Your task to perform on an android device: open sync settings in chrome Image 0: 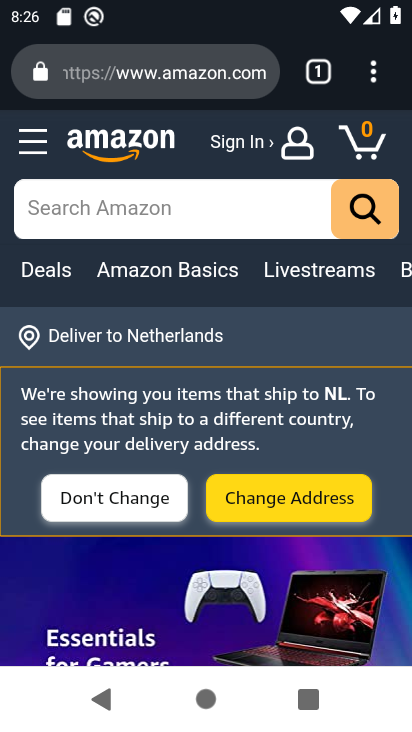
Step 0: drag from (184, 564) to (153, 38)
Your task to perform on an android device: open sync settings in chrome Image 1: 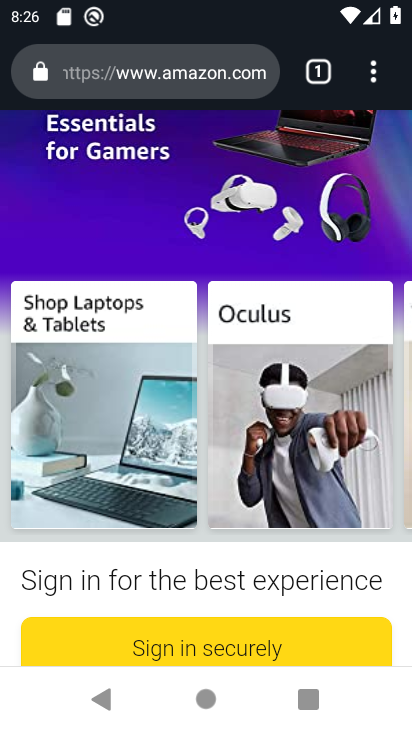
Step 1: click (379, 64)
Your task to perform on an android device: open sync settings in chrome Image 2: 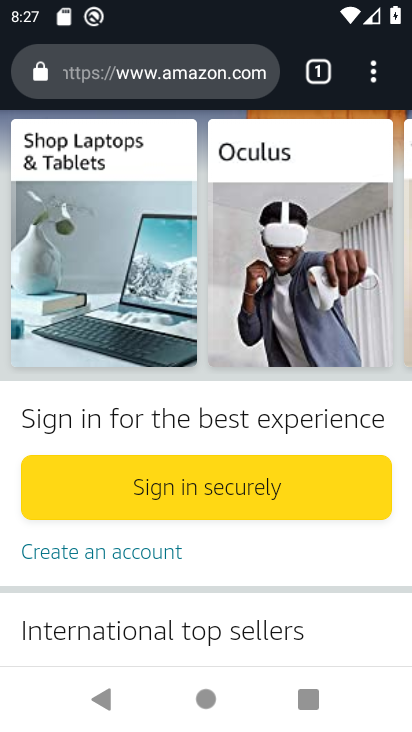
Step 2: drag from (225, 609) to (295, 165)
Your task to perform on an android device: open sync settings in chrome Image 3: 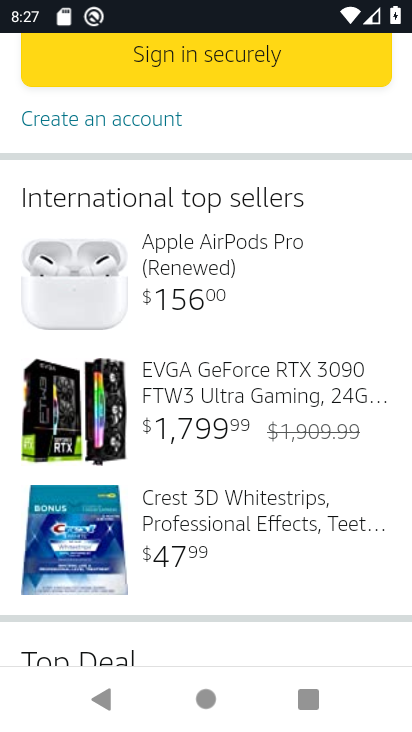
Step 3: drag from (231, 575) to (259, 282)
Your task to perform on an android device: open sync settings in chrome Image 4: 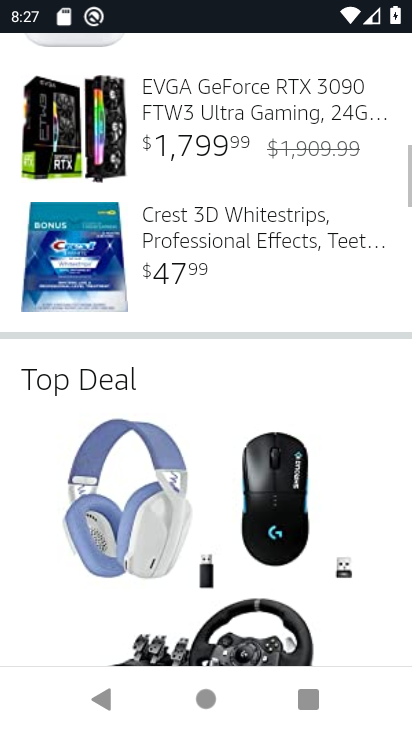
Step 4: drag from (259, 213) to (273, 689)
Your task to perform on an android device: open sync settings in chrome Image 5: 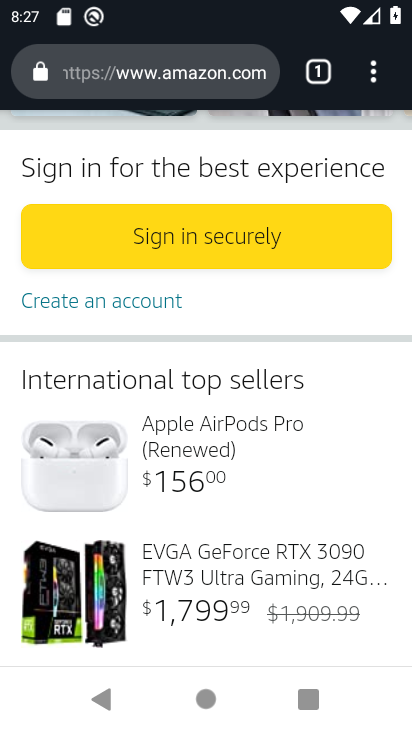
Step 5: drag from (229, 601) to (294, 697)
Your task to perform on an android device: open sync settings in chrome Image 6: 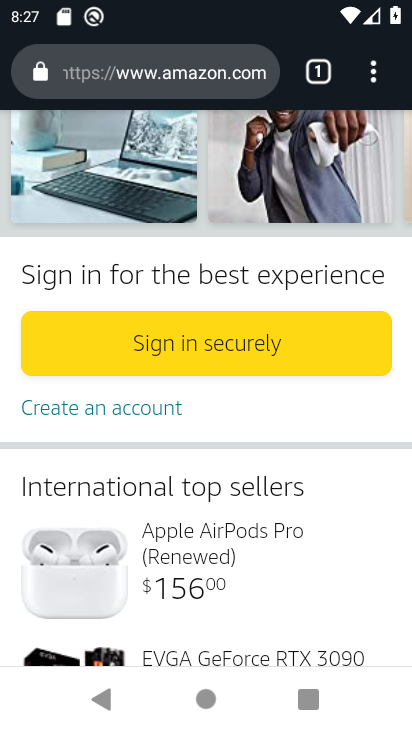
Step 6: click (377, 69)
Your task to perform on an android device: open sync settings in chrome Image 7: 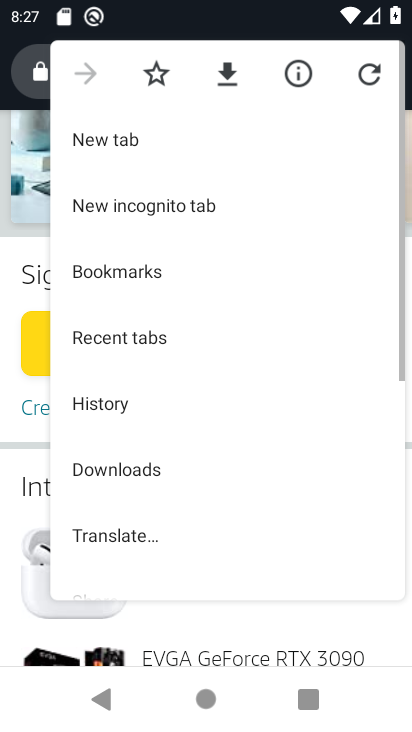
Step 7: drag from (167, 493) to (193, 106)
Your task to perform on an android device: open sync settings in chrome Image 8: 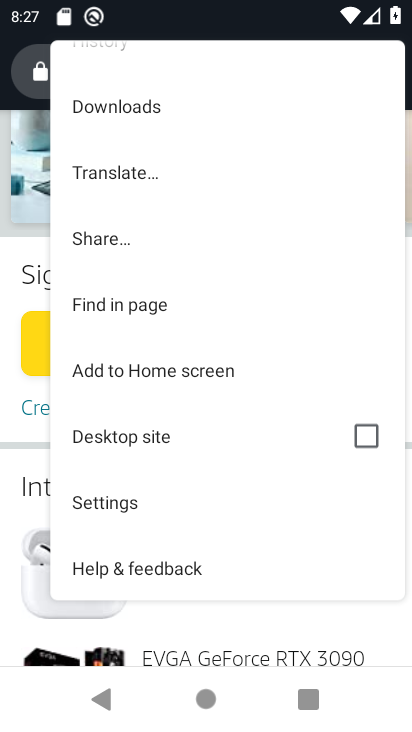
Step 8: click (142, 506)
Your task to perform on an android device: open sync settings in chrome Image 9: 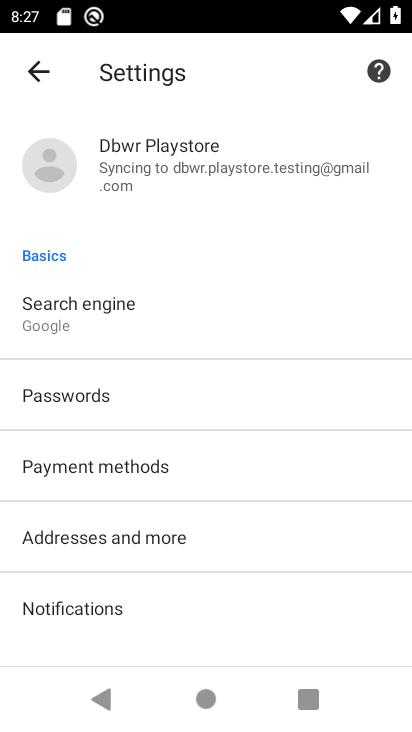
Step 9: drag from (206, 295) to (296, 10)
Your task to perform on an android device: open sync settings in chrome Image 10: 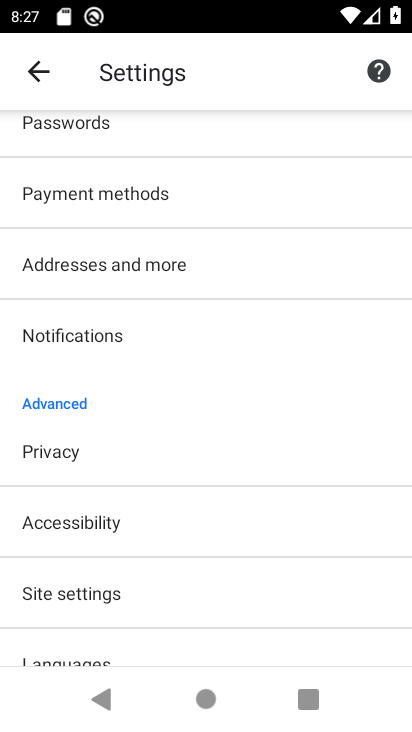
Step 10: click (98, 575)
Your task to perform on an android device: open sync settings in chrome Image 11: 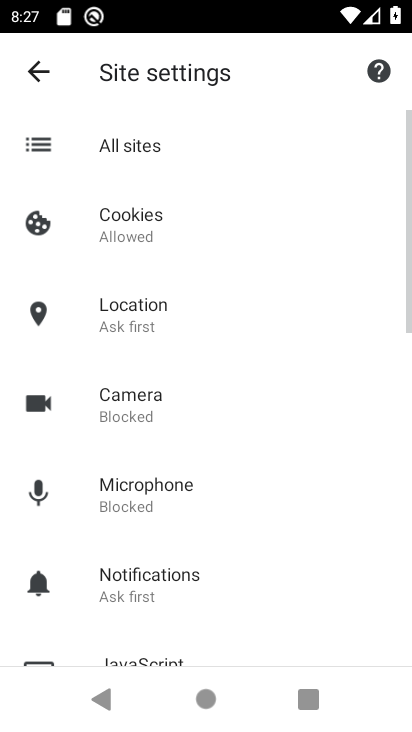
Step 11: drag from (213, 575) to (235, 91)
Your task to perform on an android device: open sync settings in chrome Image 12: 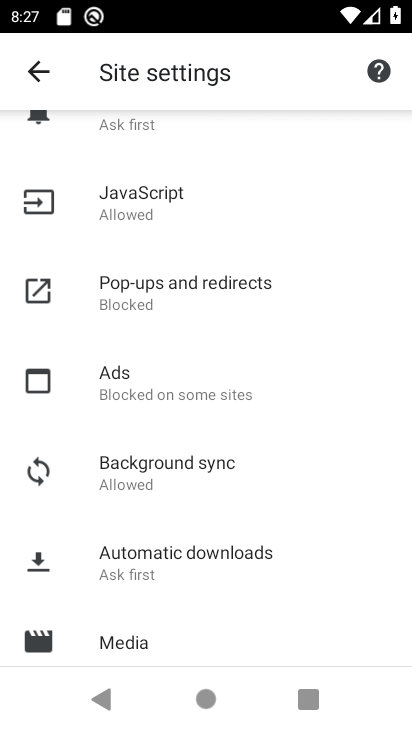
Step 12: click (179, 478)
Your task to perform on an android device: open sync settings in chrome Image 13: 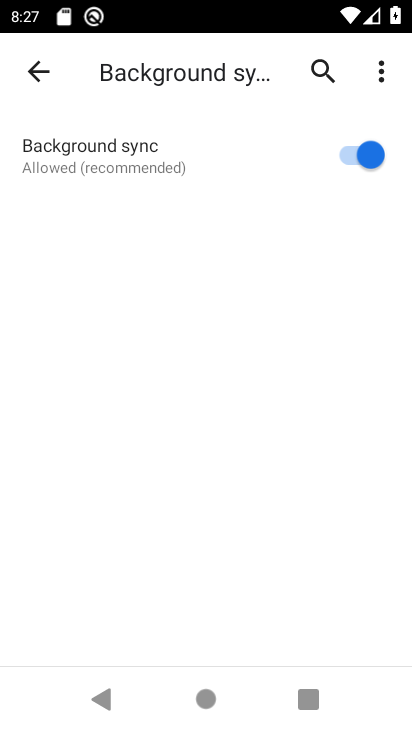
Step 13: task complete